Your task to perform on an android device: Open calendar and show me the first week of next month Image 0: 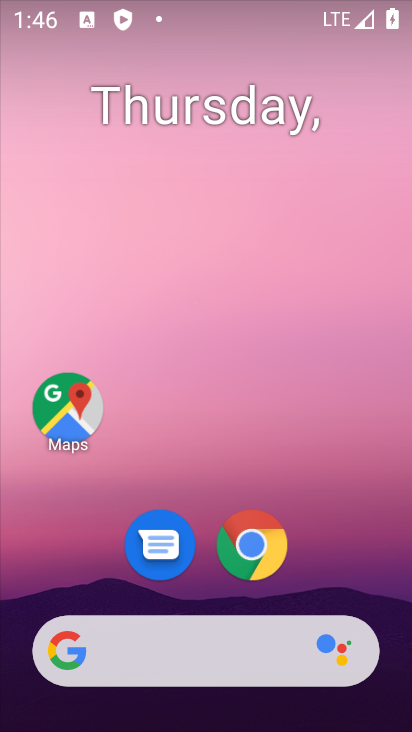
Step 0: drag from (279, 535) to (278, 6)
Your task to perform on an android device: Open calendar and show me the first week of next month Image 1: 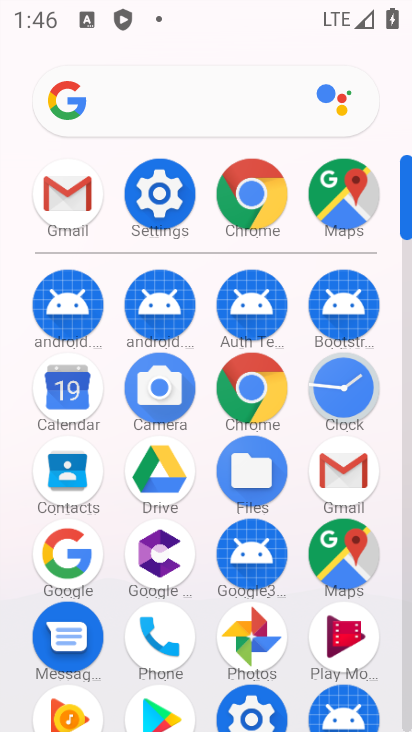
Step 1: click (75, 397)
Your task to perform on an android device: Open calendar and show me the first week of next month Image 2: 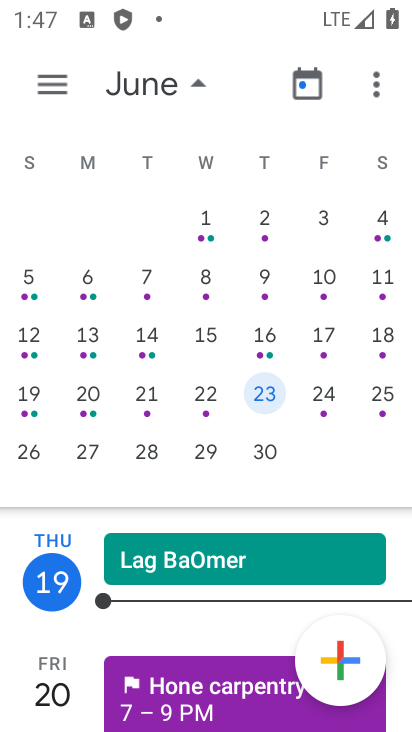
Step 2: drag from (378, 351) to (42, 362)
Your task to perform on an android device: Open calendar and show me the first week of next month Image 3: 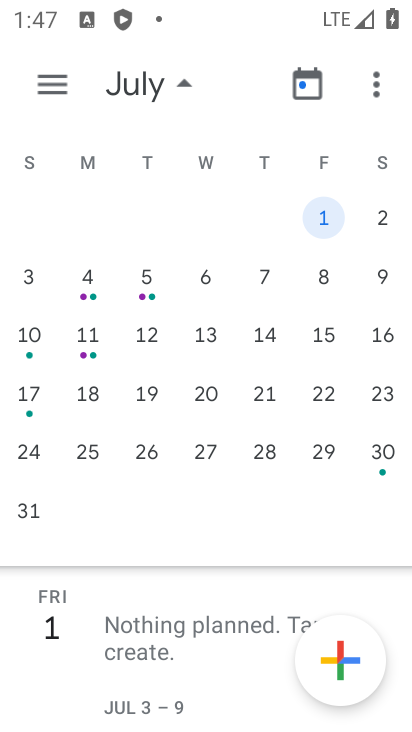
Step 3: drag from (81, 332) to (394, 330)
Your task to perform on an android device: Open calendar and show me the first week of next month Image 4: 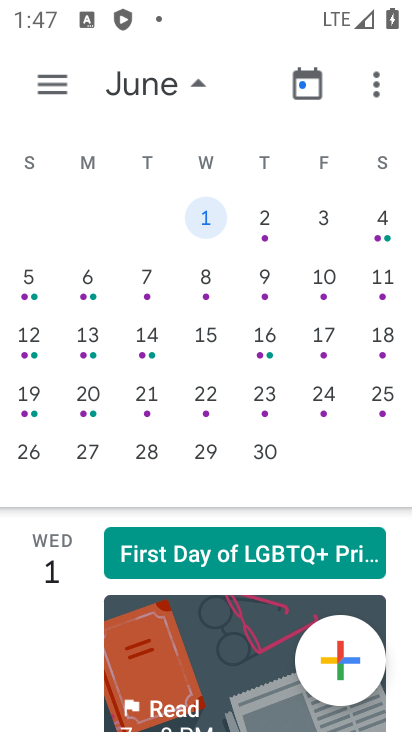
Step 4: click (320, 220)
Your task to perform on an android device: Open calendar and show me the first week of next month Image 5: 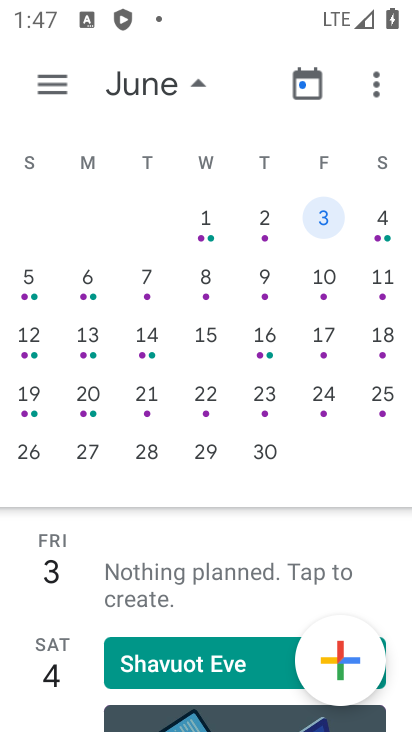
Step 5: click (56, 86)
Your task to perform on an android device: Open calendar and show me the first week of next month Image 6: 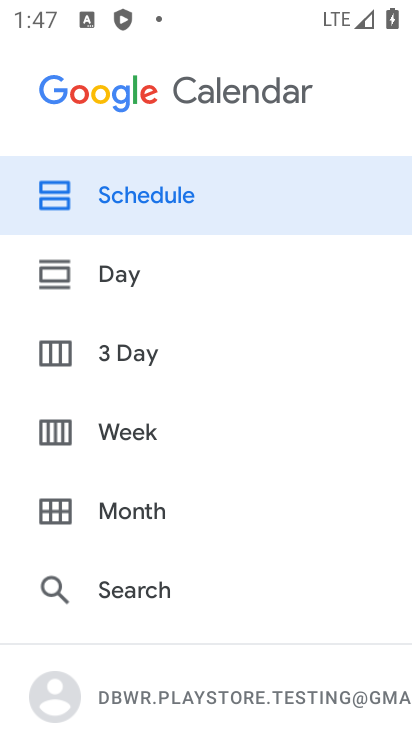
Step 6: click (157, 508)
Your task to perform on an android device: Open calendar and show me the first week of next month Image 7: 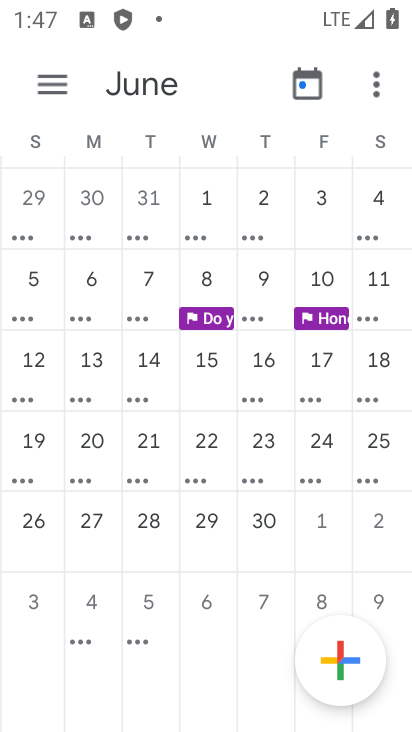
Step 7: click (57, 79)
Your task to perform on an android device: Open calendar and show me the first week of next month Image 8: 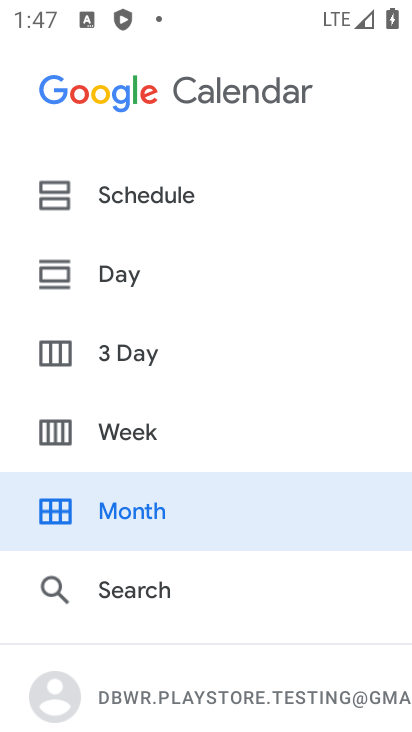
Step 8: click (137, 439)
Your task to perform on an android device: Open calendar and show me the first week of next month Image 9: 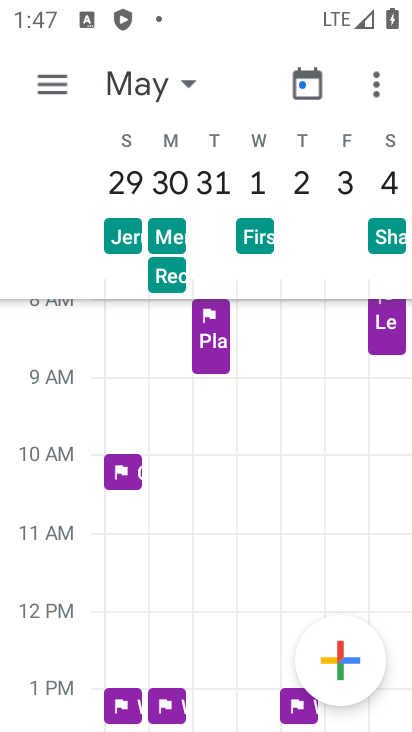
Step 9: task complete